Your task to perform on an android device: Open the calculator Image 0: 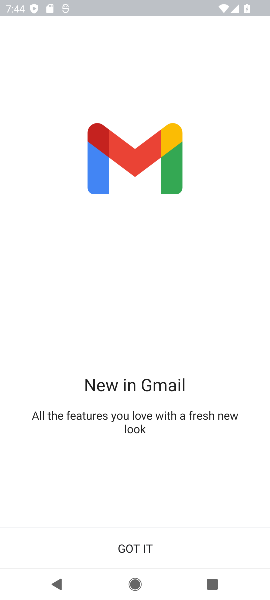
Step 0: press home button
Your task to perform on an android device: Open the calculator Image 1: 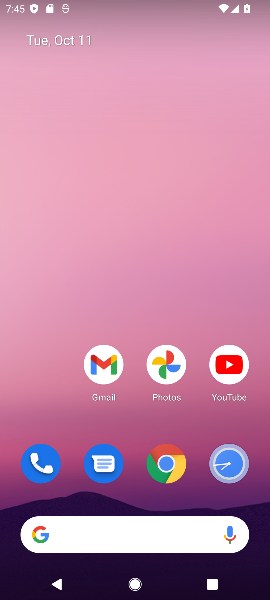
Step 1: drag from (77, 480) to (122, 219)
Your task to perform on an android device: Open the calculator Image 2: 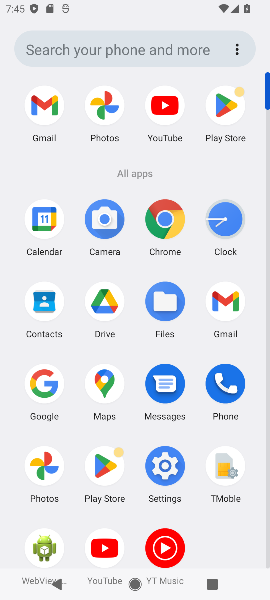
Step 2: click (32, 379)
Your task to perform on an android device: Open the calculator Image 3: 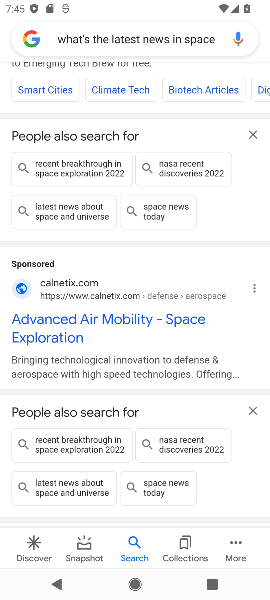
Step 3: click (124, 35)
Your task to perform on an android device: Open the calculator Image 4: 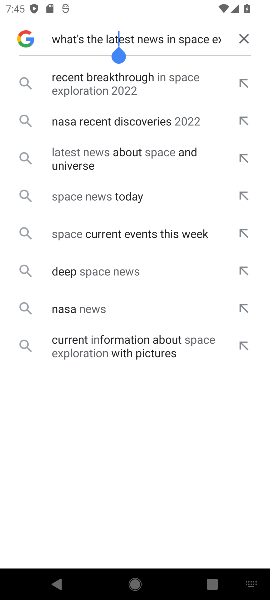
Step 4: click (248, 34)
Your task to perform on an android device: Open the calculator Image 5: 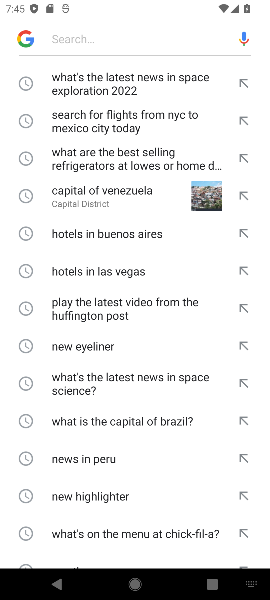
Step 5: click (118, 41)
Your task to perform on an android device: Open the calculator Image 6: 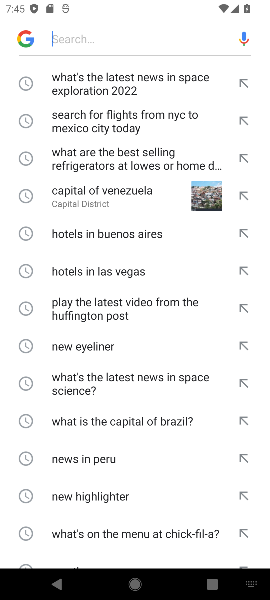
Step 6: type "Open the calculator "
Your task to perform on an android device: Open the calculator Image 7: 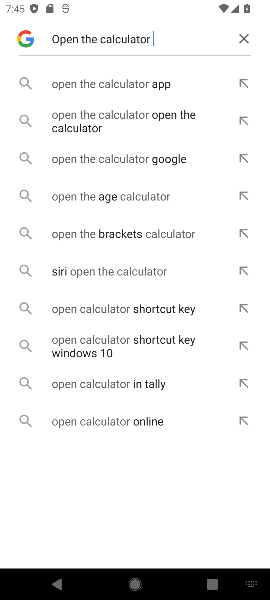
Step 7: click (118, 87)
Your task to perform on an android device: Open the calculator Image 8: 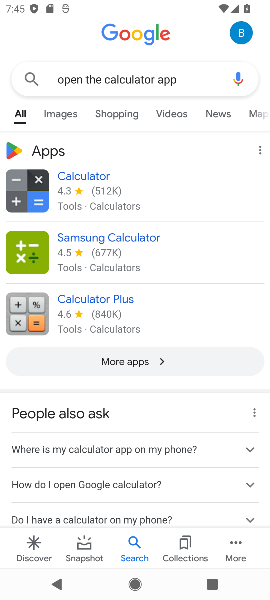
Step 8: click (96, 184)
Your task to perform on an android device: Open the calculator Image 9: 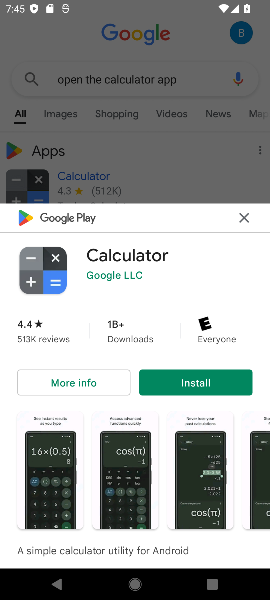
Step 9: click (204, 379)
Your task to perform on an android device: Open the calculator Image 10: 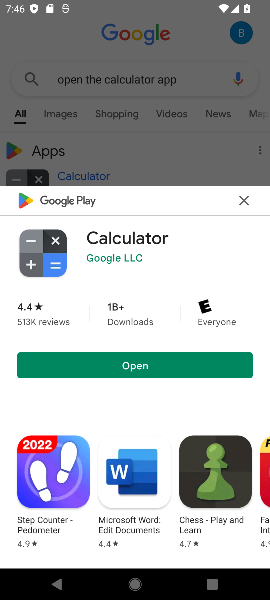
Step 10: click (222, 358)
Your task to perform on an android device: Open the calculator Image 11: 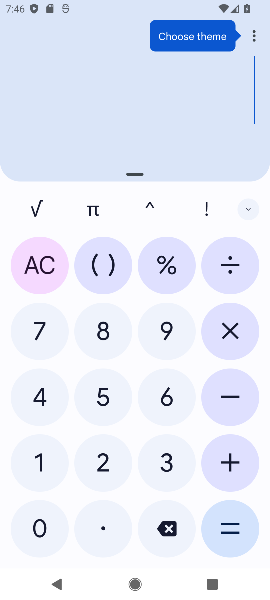
Step 11: task complete